Your task to perform on an android device: Go to Reddit.com Image 0: 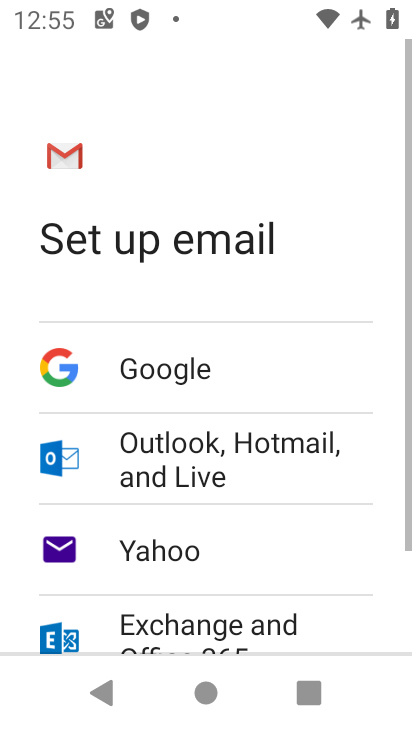
Step 0: press home button
Your task to perform on an android device: Go to Reddit.com Image 1: 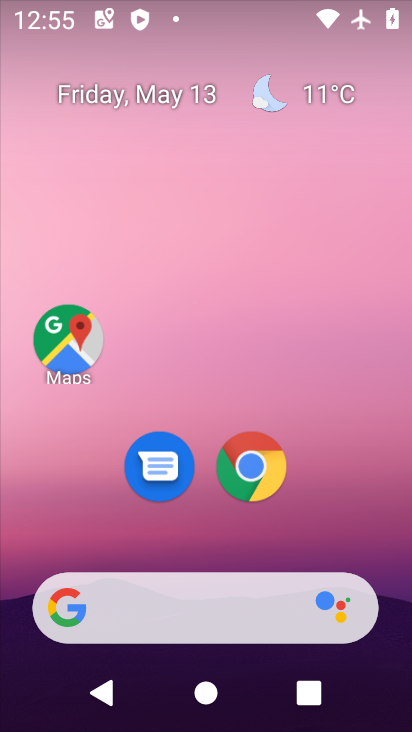
Step 1: click (249, 474)
Your task to perform on an android device: Go to Reddit.com Image 2: 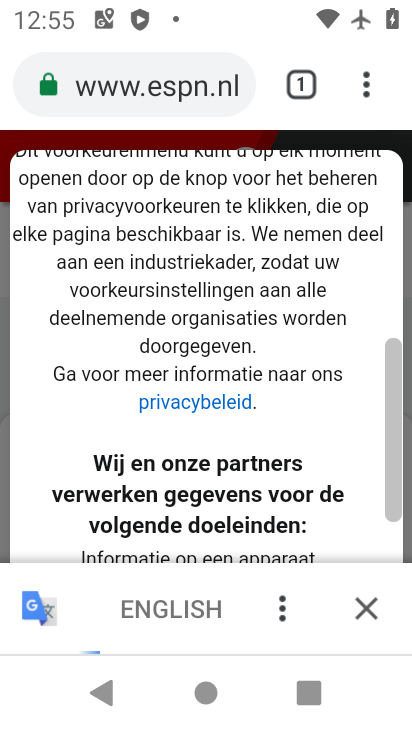
Step 2: click (149, 88)
Your task to perform on an android device: Go to Reddit.com Image 3: 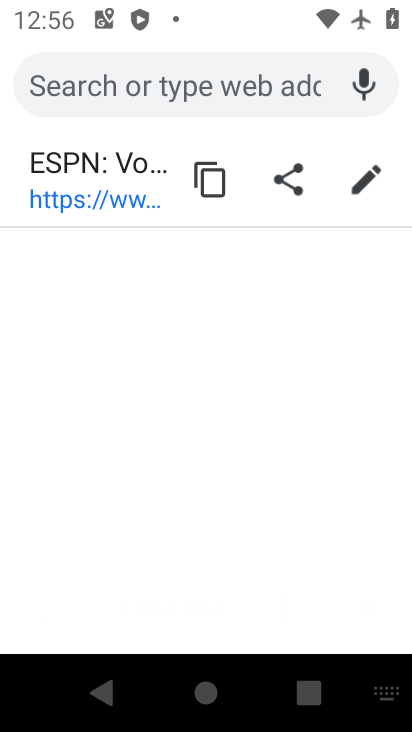
Step 3: type "Reddit.com"
Your task to perform on an android device: Go to Reddit.com Image 4: 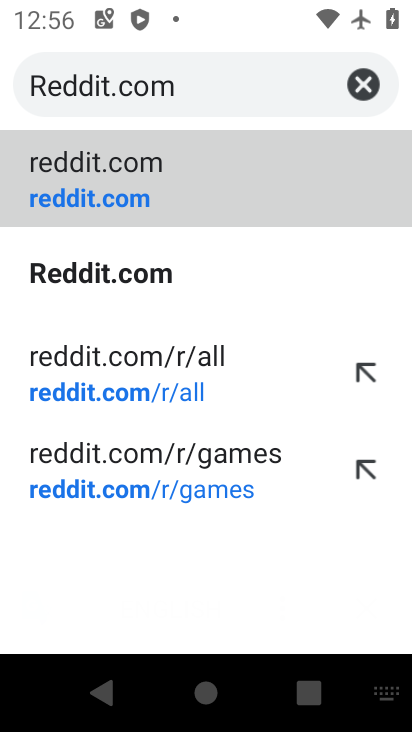
Step 4: click (104, 195)
Your task to perform on an android device: Go to Reddit.com Image 5: 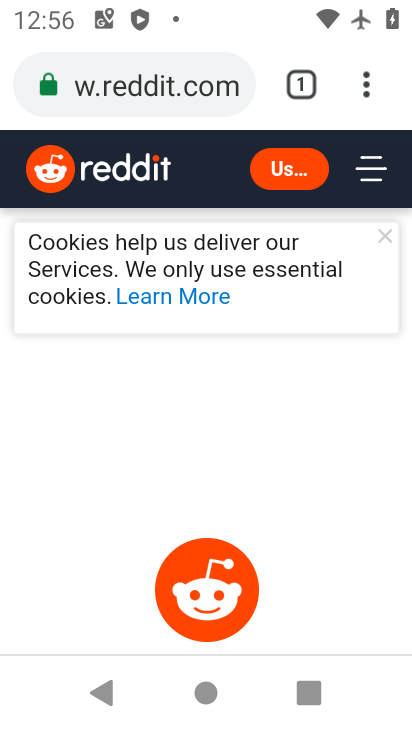
Step 5: task complete